Your task to perform on an android device: Open Android settings Image 0: 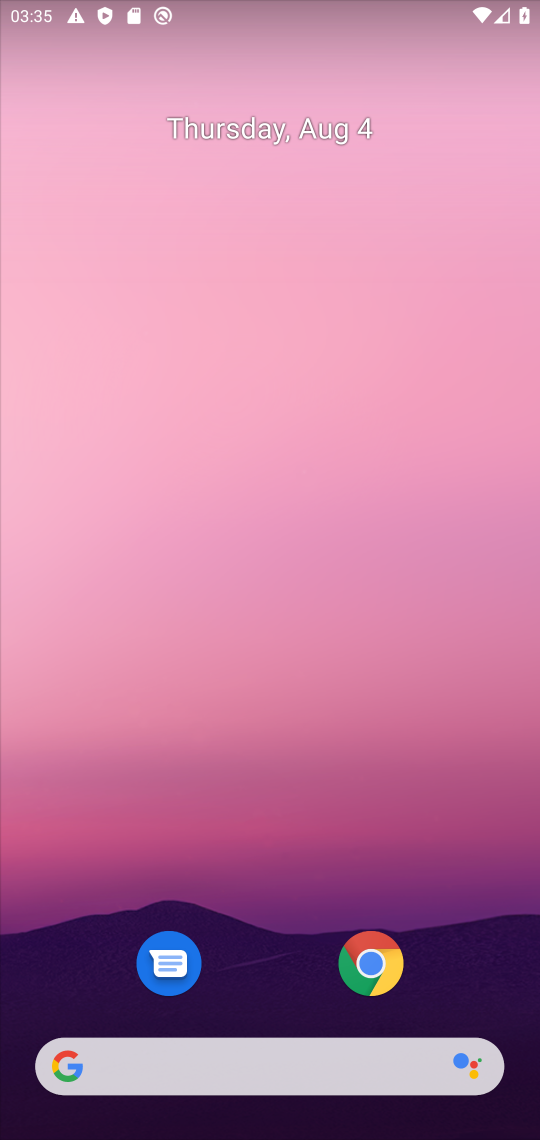
Step 0: drag from (481, 965) to (488, 27)
Your task to perform on an android device: Open Android settings Image 1: 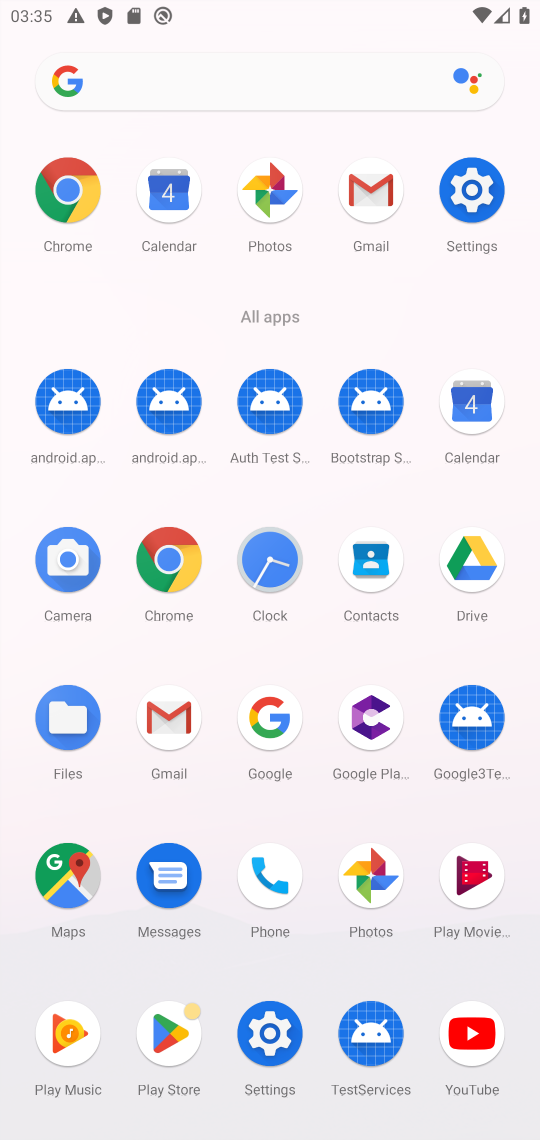
Step 1: click (463, 192)
Your task to perform on an android device: Open Android settings Image 2: 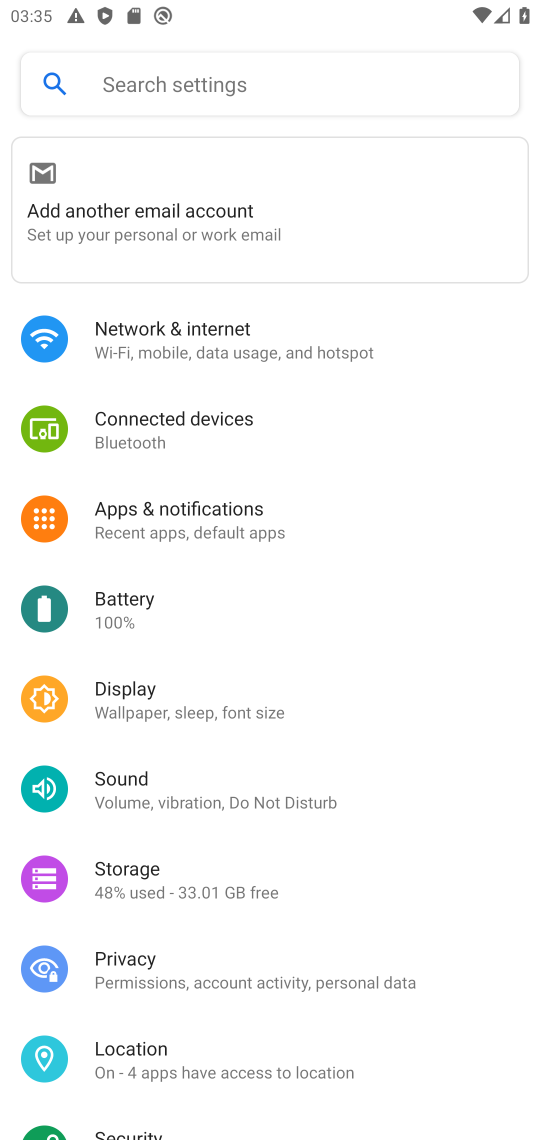
Step 2: task complete